Your task to perform on an android device: find photos in the google photos app Image 0: 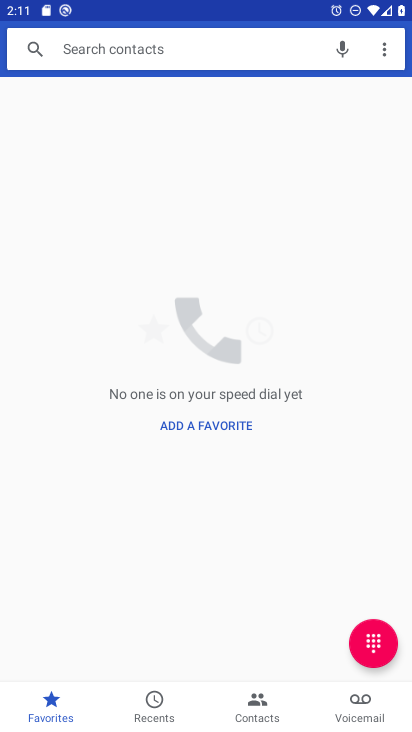
Step 0: press home button
Your task to perform on an android device: find photos in the google photos app Image 1: 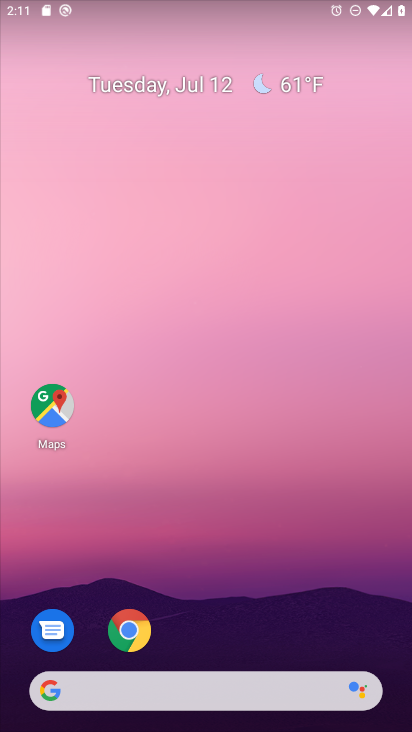
Step 1: drag from (200, 633) to (194, 153)
Your task to perform on an android device: find photos in the google photos app Image 2: 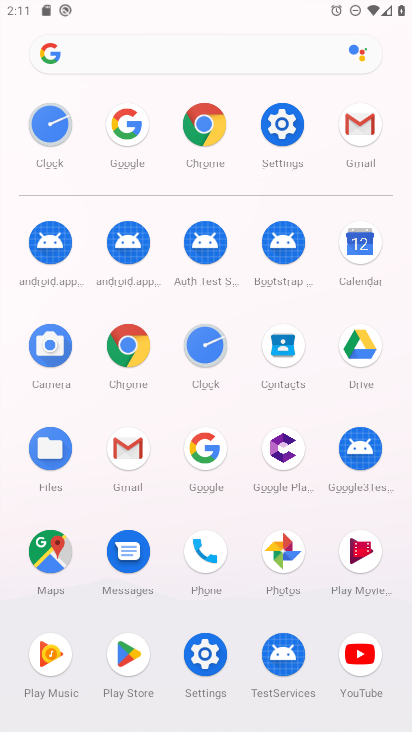
Step 2: click (281, 535)
Your task to perform on an android device: find photos in the google photos app Image 3: 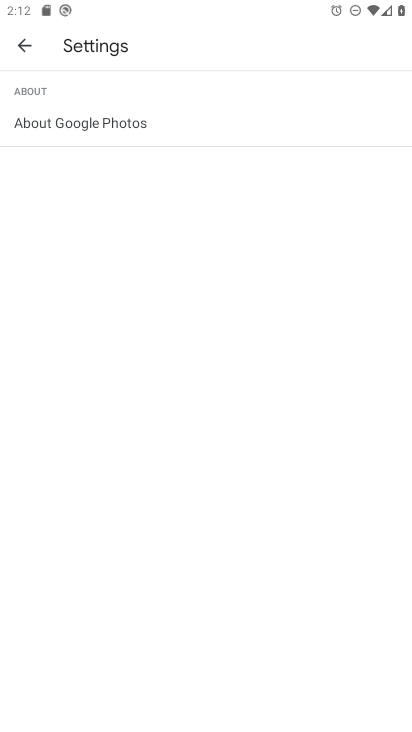
Step 3: click (38, 45)
Your task to perform on an android device: find photos in the google photos app Image 4: 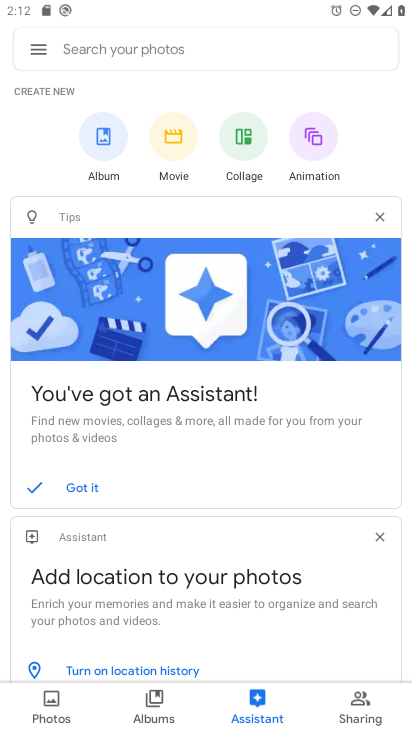
Step 4: click (65, 44)
Your task to perform on an android device: find photos in the google photos app Image 5: 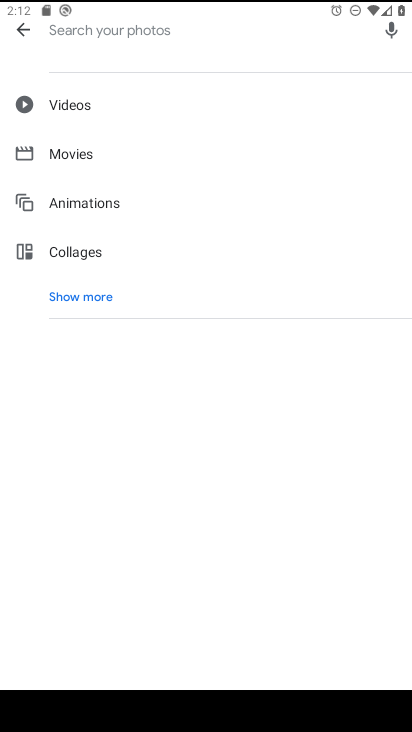
Step 5: type "aa"
Your task to perform on an android device: find photos in the google photos app Image 6: 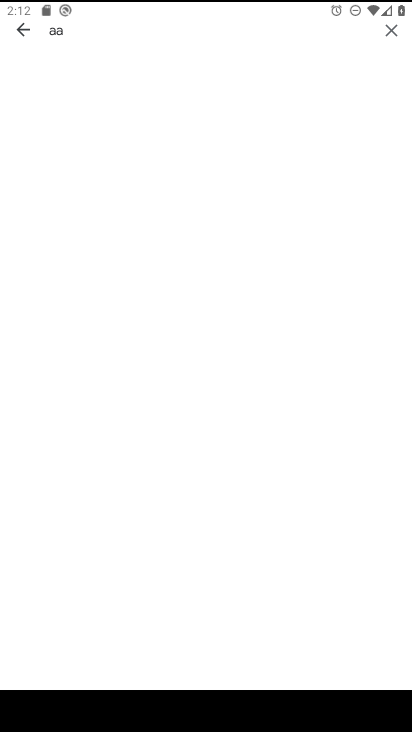
Step 6: task complete